Your task to perform on an android device: change notifications settings Image 0: 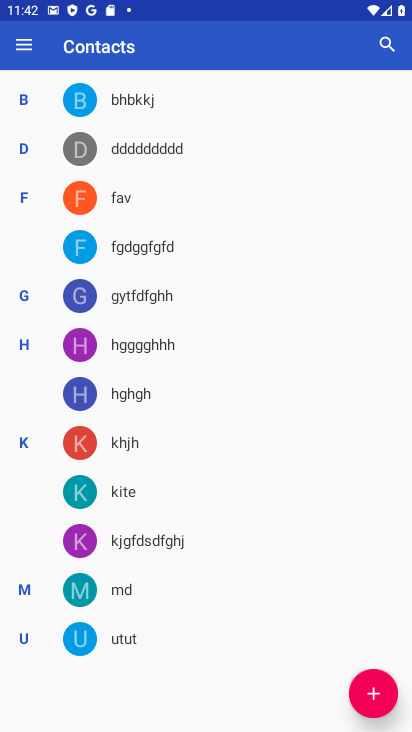
Step 0: press home button
Your task to perform on an android device: change notifications settings Image 1: 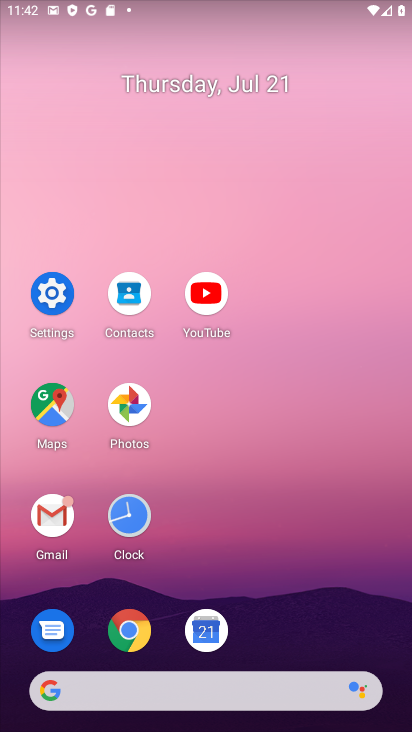
Step 1: click (46, 295)
Your task to perform on an android device: change notifications settings Image 2: 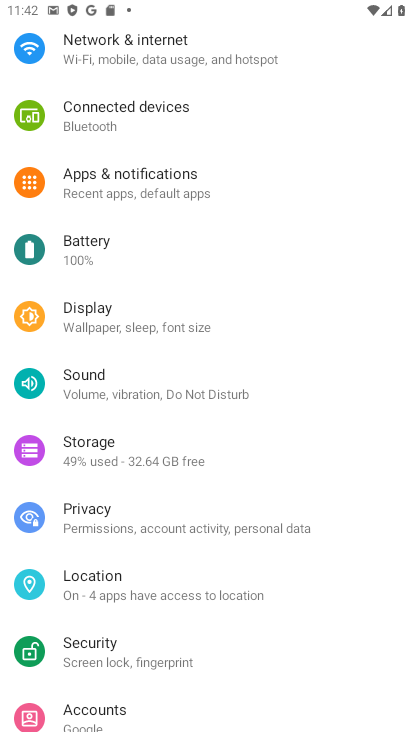
Step 2: click (138, 174)
Your task to perform on an android device: change notifications settings Image 3: 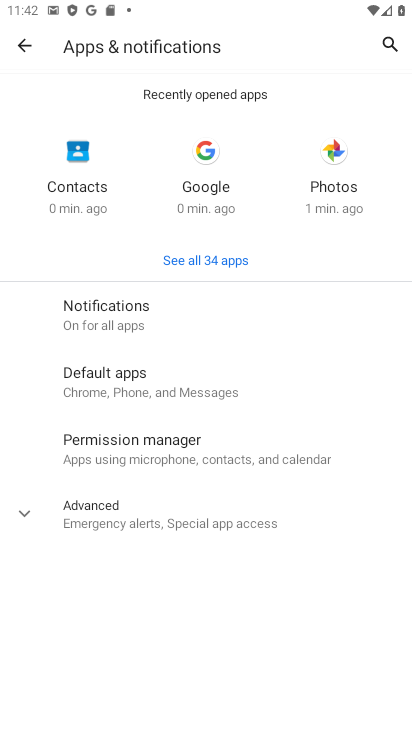
Step 3: click (92, 307)
Your task to perform on an android device: change notifications settings Image 4: 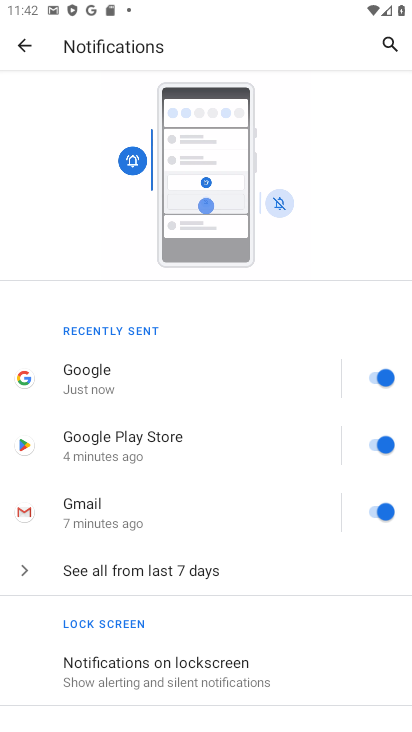
Step 4: click (124, 569)
Your task to perform on an android device: change notifications settings Image 5: 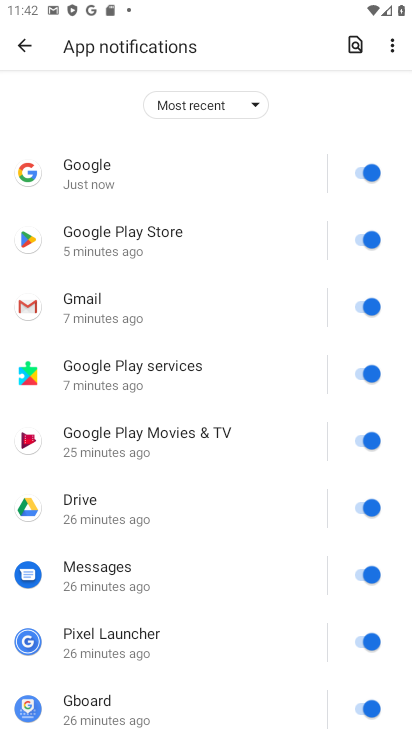
Step 5: click (254, 103)
Your task to perform on an android device: change notifications settings Image 6: 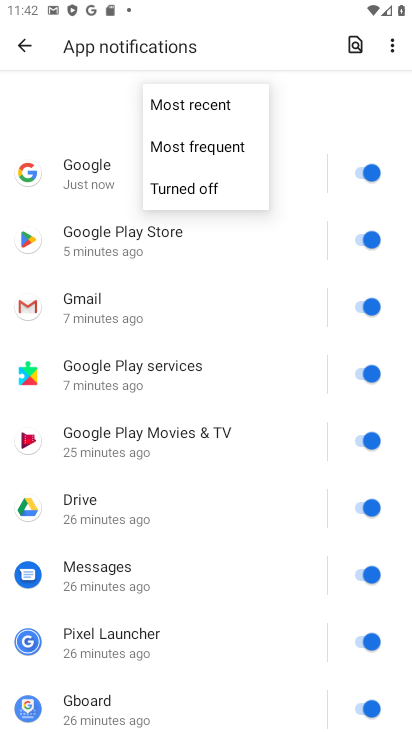
Step 6: click (199, 186)
Your task to perform on an android device: change notifications settings Image 7: 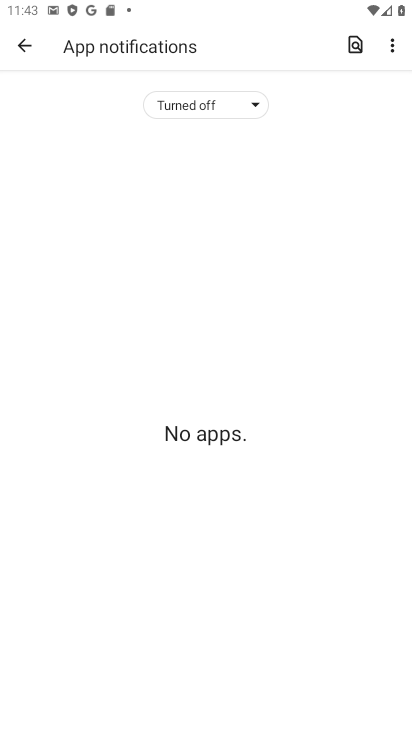
Step 7: task complete